Your task to perform on an android device: Go to accessibility settings Image 0: 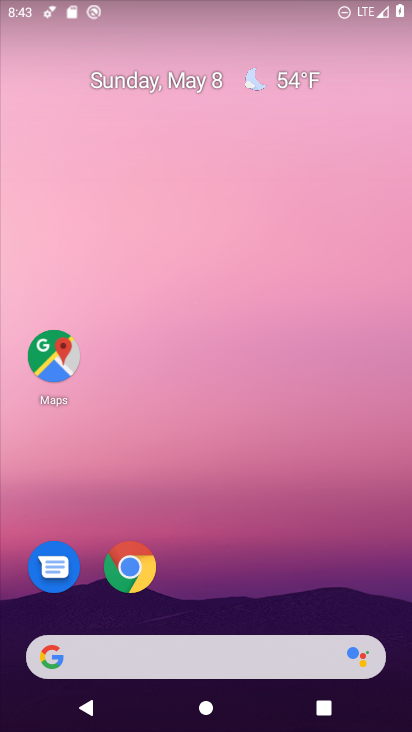
Step 0: drag from (327, 567) to (403, 117)
Your task to perform on an android device: Go to accessibility settings Image 1: 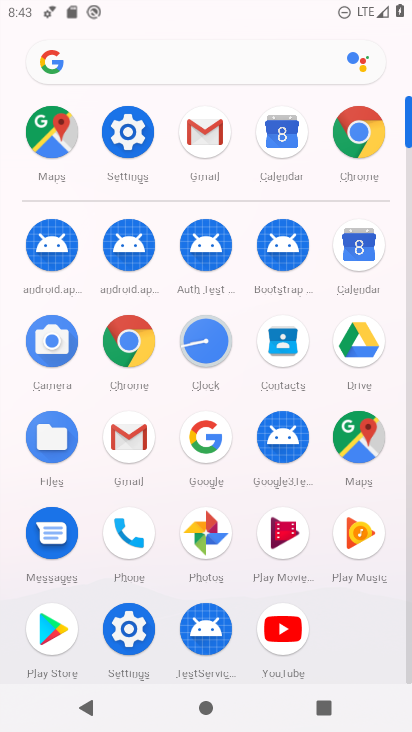
Step 1: click (113, 138)
Your task to perform on an android device: Go to accessibility settings Image 2: 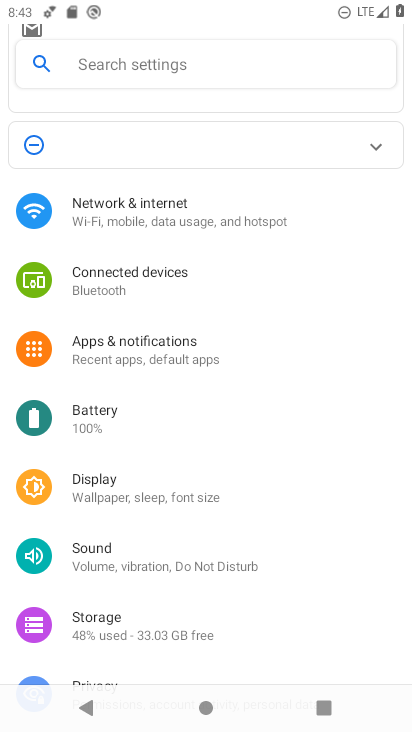
Step 2: drag from (159, 579) to (243, 223)
Your task to perform on an android device: Go to accessibility settings Image 3: 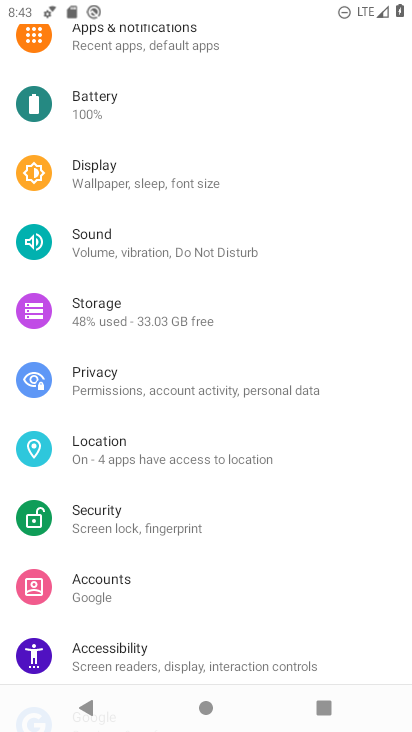
Step 3: drag from (232, 552) to (285, 203)
Your task to perform on an android device: Go to accessibility settings Image 4: 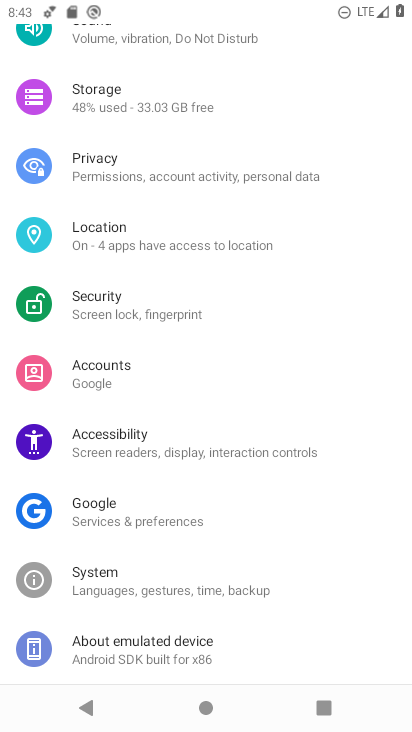
Step 4: click (80, 447)
Your task to perform on an android device: Go to accessibility settings Image 5: 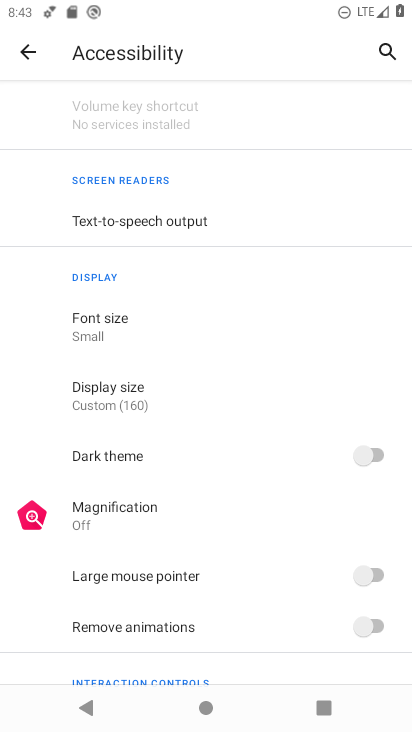
Step 5: task complete